Your task to perform on an android device: Go to settings Image 0: 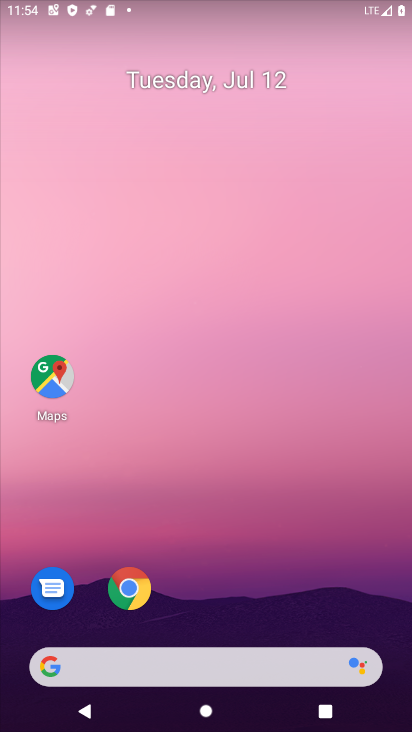
Step 0: drag from (398, 650) to (323, 207)
Your task to perform on an android device: Go to settings Image 1: 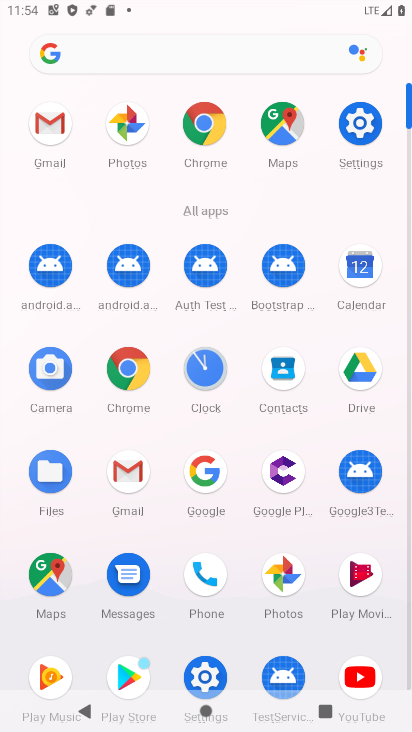
Step 1: click (206, 671)
Your task to perform on an android device: Go to settings Image 2: 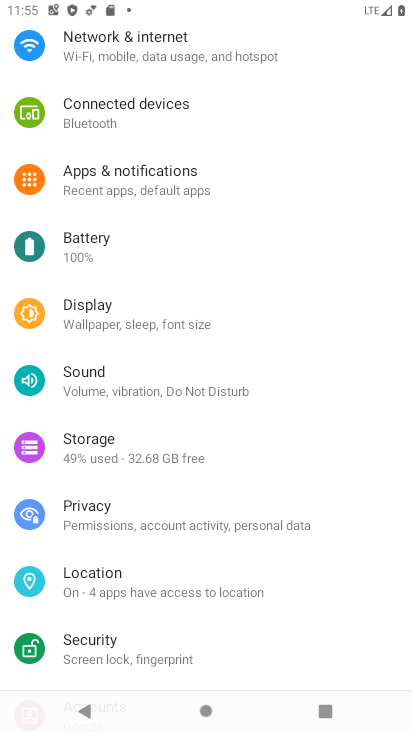
Step 2: task complete